Your task to perform on an android device: Go to Android settings Image 0: 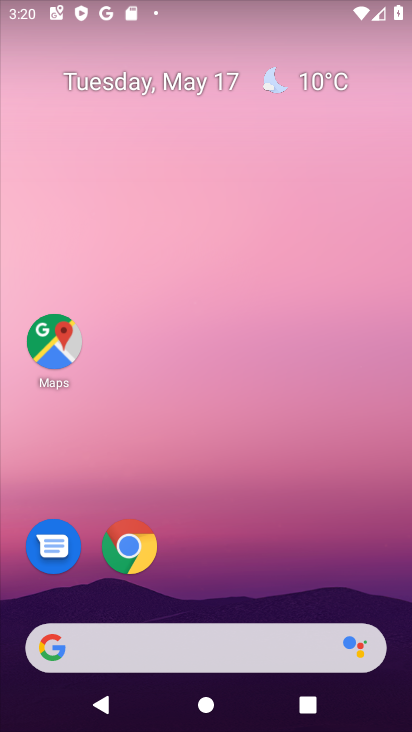
Step 0: drag from (219, 554) to (276, 97)
Your task to perform on an android device: Go to Android settings Image 1: 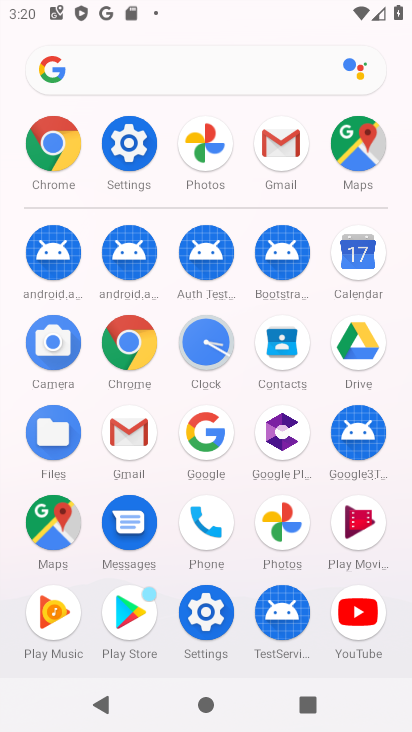
Step 1: click (213, 626)
Your task to perform on an android device: Go to Android settings Image 2: 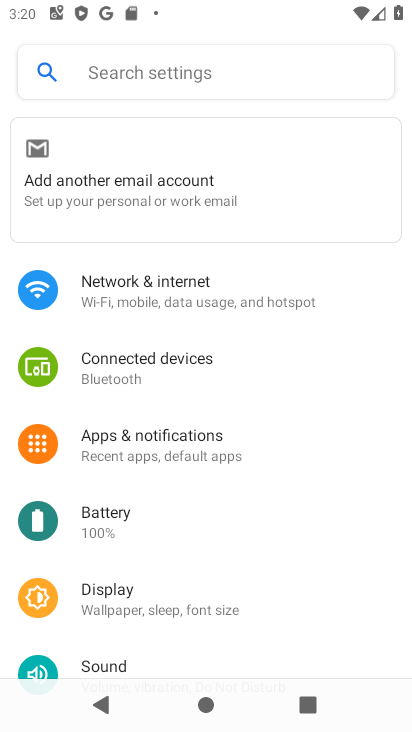
Step 2: drag from (175, 564) to (222, 141)
Your task to perform on an android device: Go to Android settings Image 3: 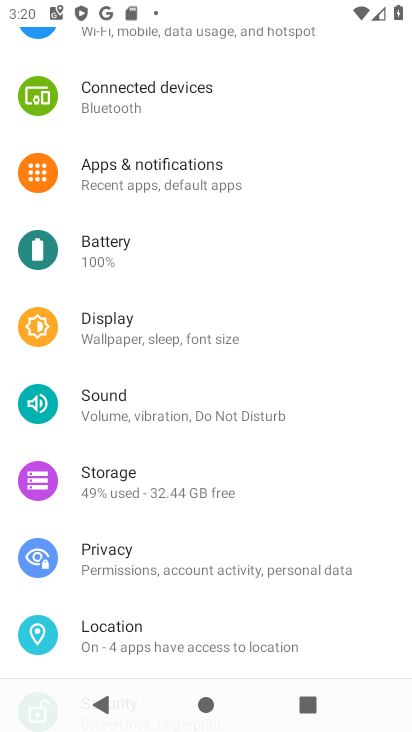
Step 3: drag from (166, 568) to (258, 78)
Your task to perform on an android device: Go to Android settings Image 4: 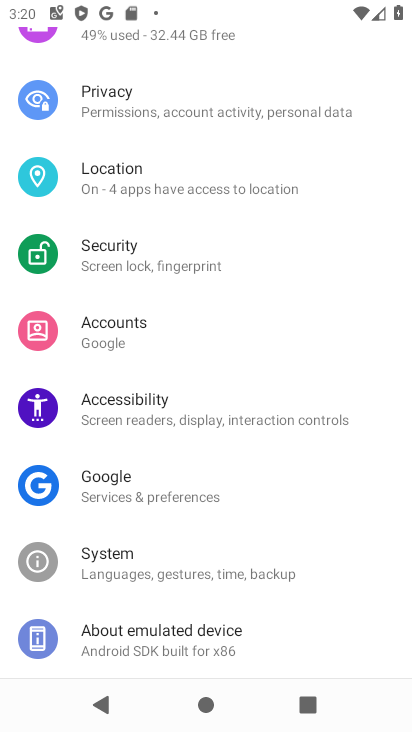
Step 4: click (188, 642)
Your task to perform on an android device: Go to Android settings Image 5: 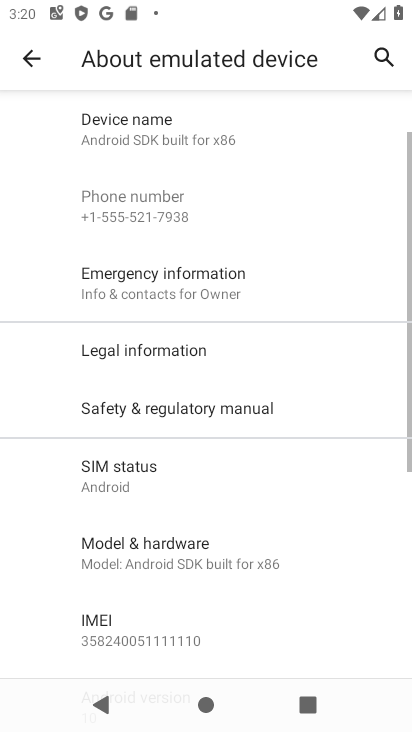
Step 5: drag from (141, 519) to (190, 247)
Your task to perform on an android device: Go to Android settings Image 6: 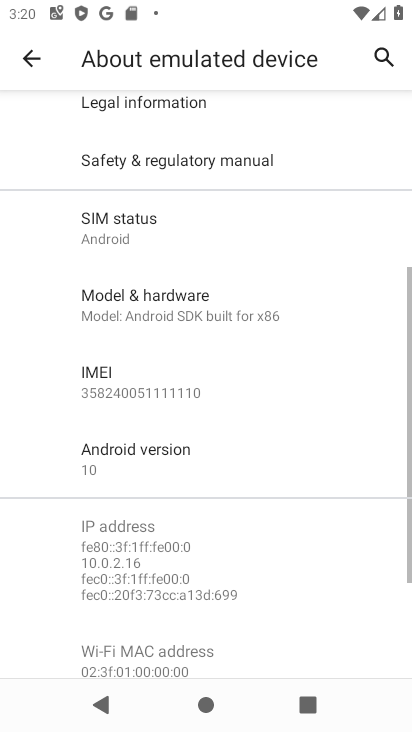
Step 6: click (145, 465)
Your task to perform on an android device: Go to Android settings Image 7: 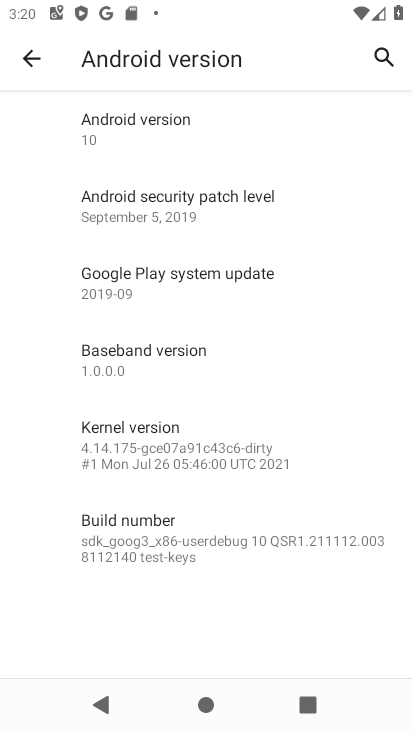
Step 7: task complete